Your task to perform on an android device: search for starred emails in the gmail app Image 0: 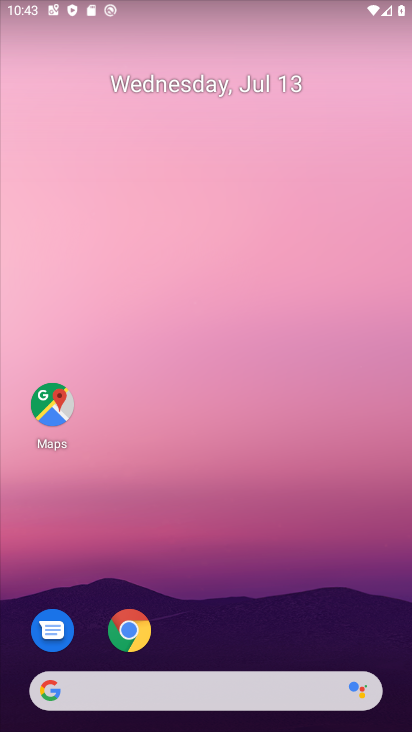
Step 0: drag from (248, 638) to (262, 67)
Your task to perform on an android device: search for starred emails in the gmail app Image 1: 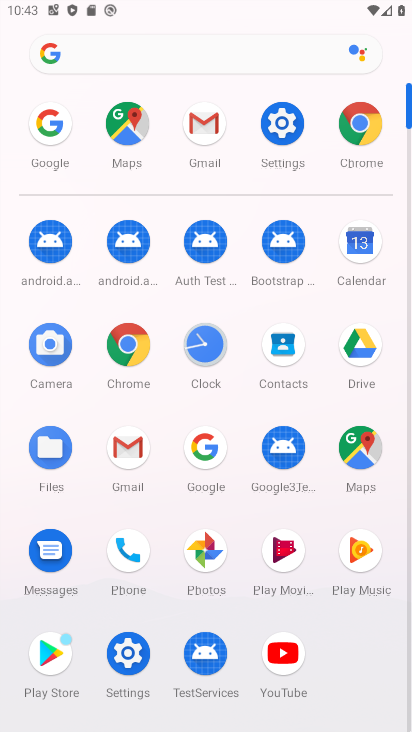
Step 1: click (210, 132)
Your task to perform on an android device: search for starred emails in the gmail app Image 2: 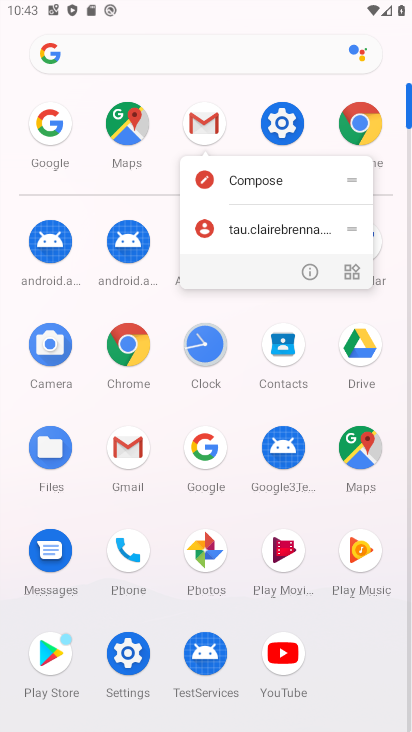
Step 2: click (210, 132)
Your task to perform on an android device: search for starred emails in the gmail app Image 3: 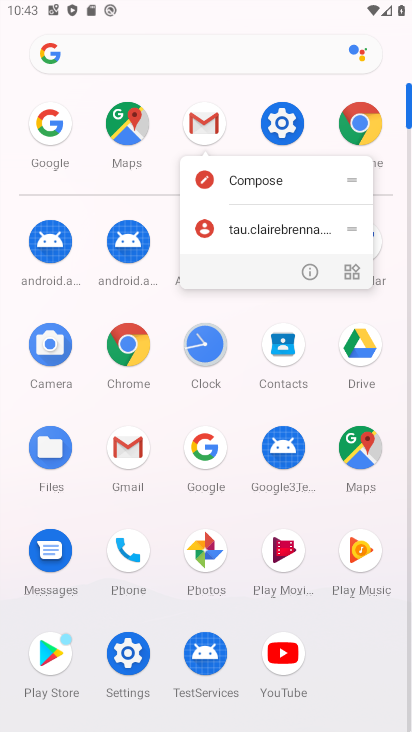
Step 3: click (210, 132)
Your task to perform on an android device: search for starred emails in the gmail app Image 4: 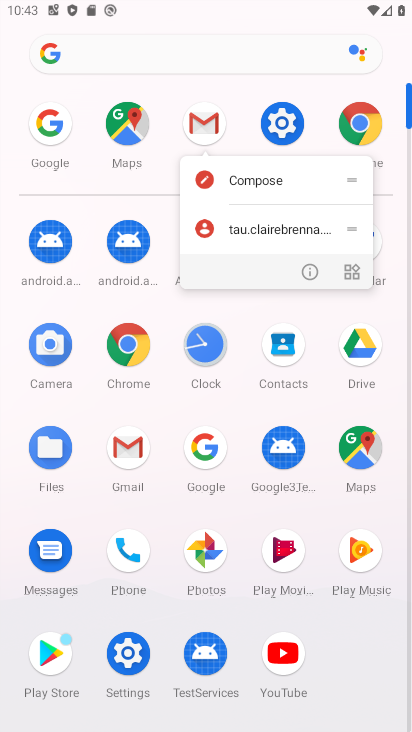
Step 4: click (202, 123)
Your task to perform on an android device: search for starred emails in the gmail app Image 5: 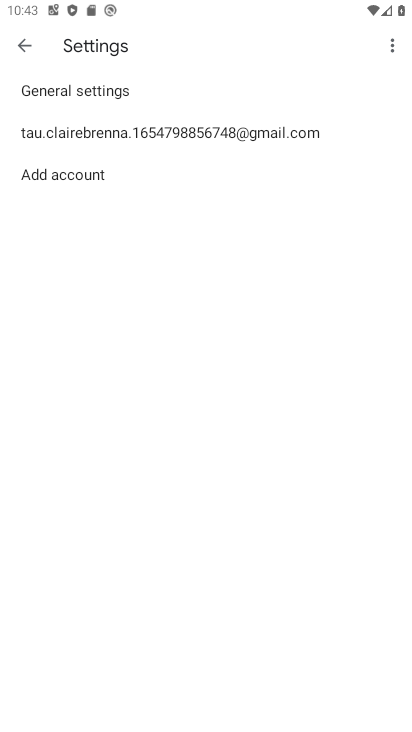
Step 5: click (26, 43)
Your task to perform on an android device: search for starred emails in the gmail app Image 6: 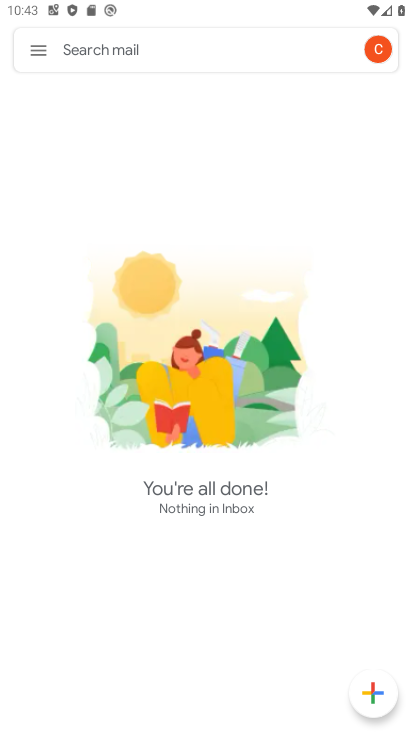
Step 6: click (26, 43)
Your task to perform on an android device: search for starred emails in the gmail app Image 7: 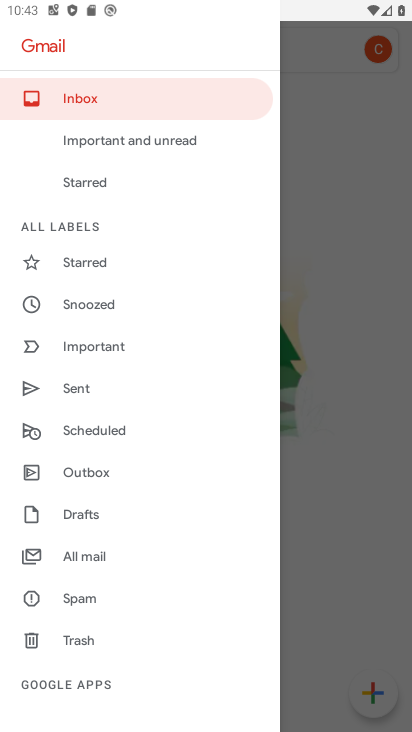
Step 7: click (72, 182)
Your task to perform on an android device: search for starred emails in the gmail app Image 8: 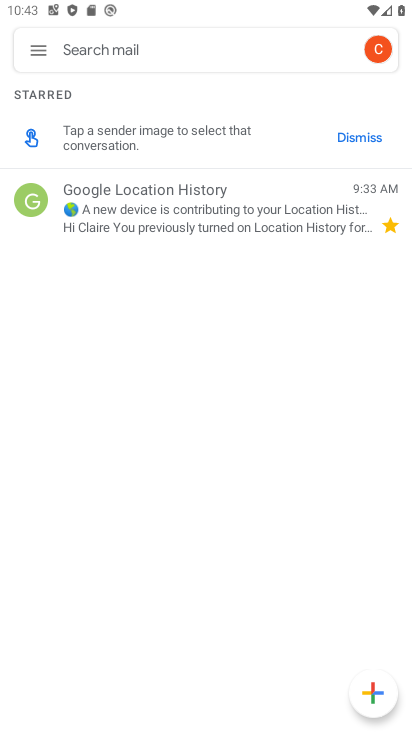
Step 8: task complete